Your task to perform on an android device: Open the phone app and click the voicemail tab. Image 0: 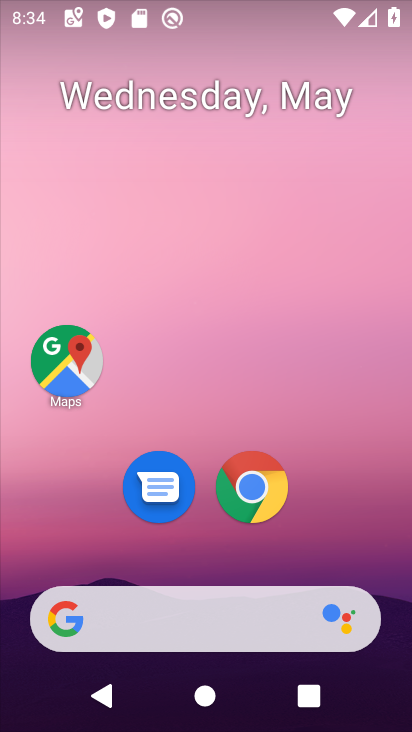
Step 0: drag from (340, 541) to (406, 225)
Your task to perform on an android device: Open the phone app and click the voicemail tab. Image 1: 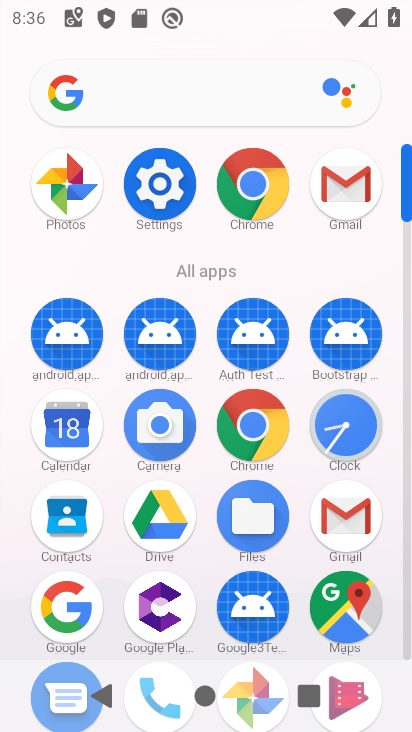
Step 1: drag from (210, 566) to (137, 203)
Your task to perform on an android device: Open the phone app and click the voicemail tab. Image 2: 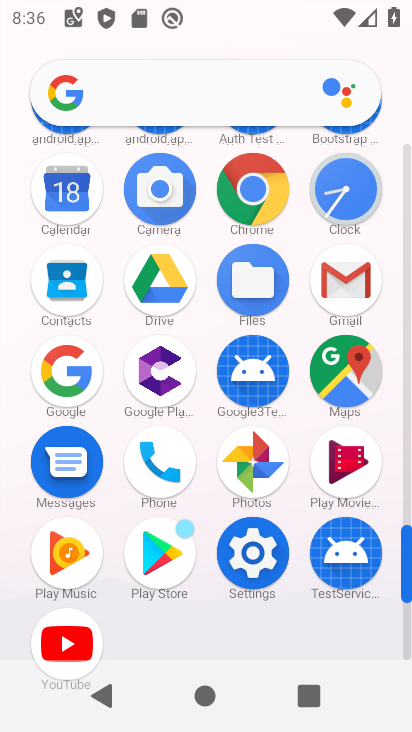
Step 2: click (334, 465)
Your task to perform on an android device: Open the phone app and click the voicemail tab. Image 3: 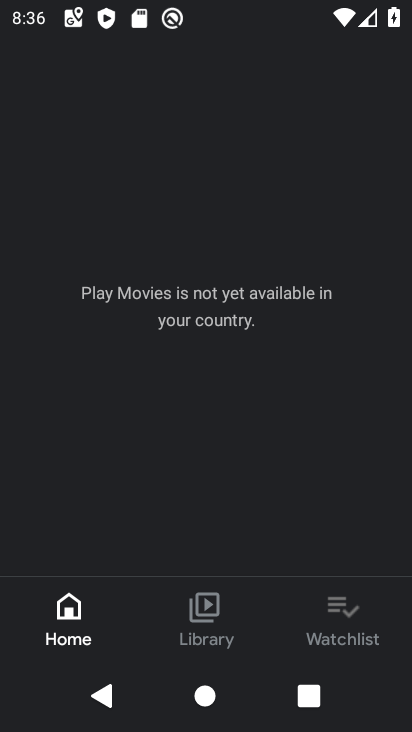
Step 3: click (347, 606)
Your task to perform on an android device: Open the phone app and click the voicemail tab. Image 4: 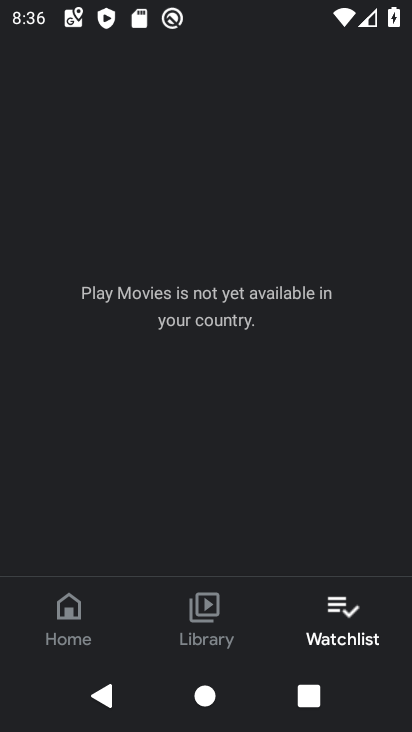
Step 4: task complete